Your task to perform on an android device: uninstall "Google Pay: Save, Pay, Manage" Image 0: 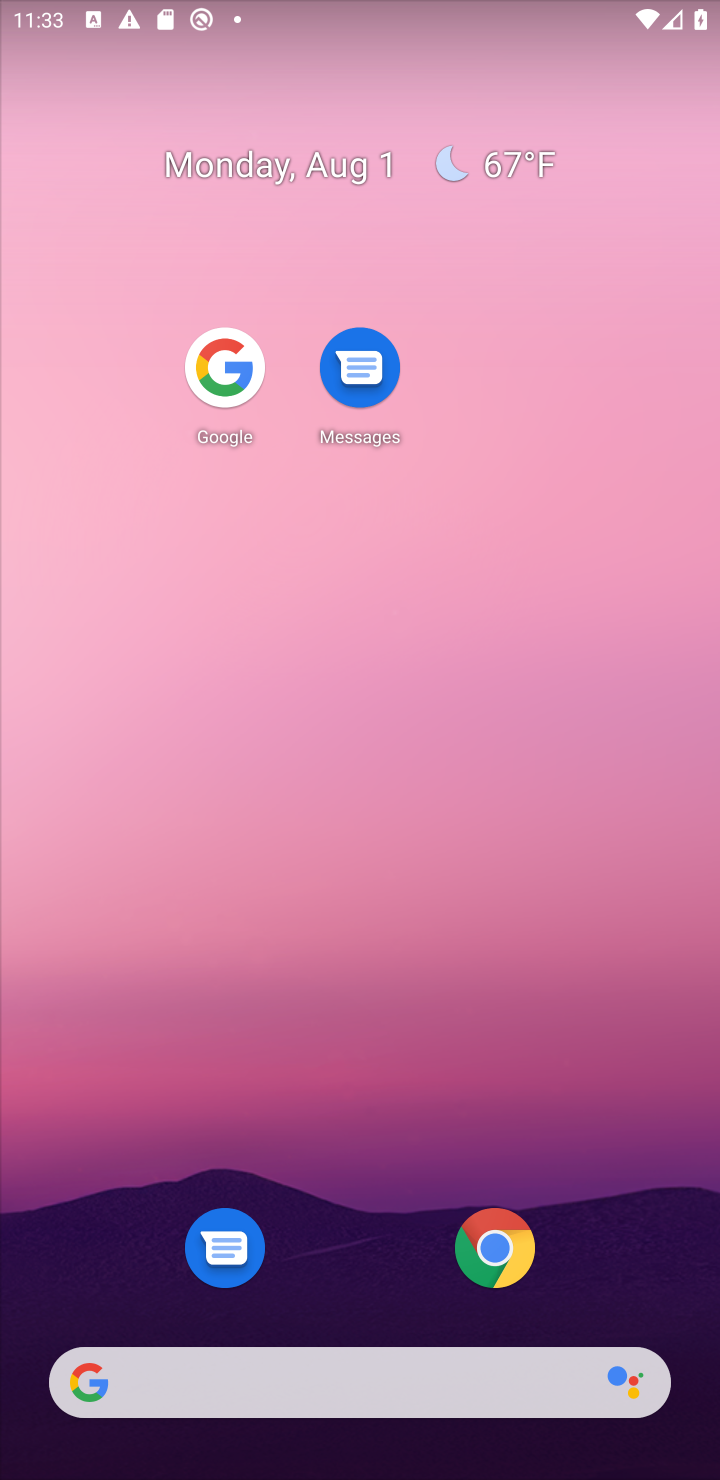
Step 0: drag from (639, 590) to (676, 45)
Your task to perform on an android device: uninstall "Google Pay: Save, Pay, Manage" Image 1: 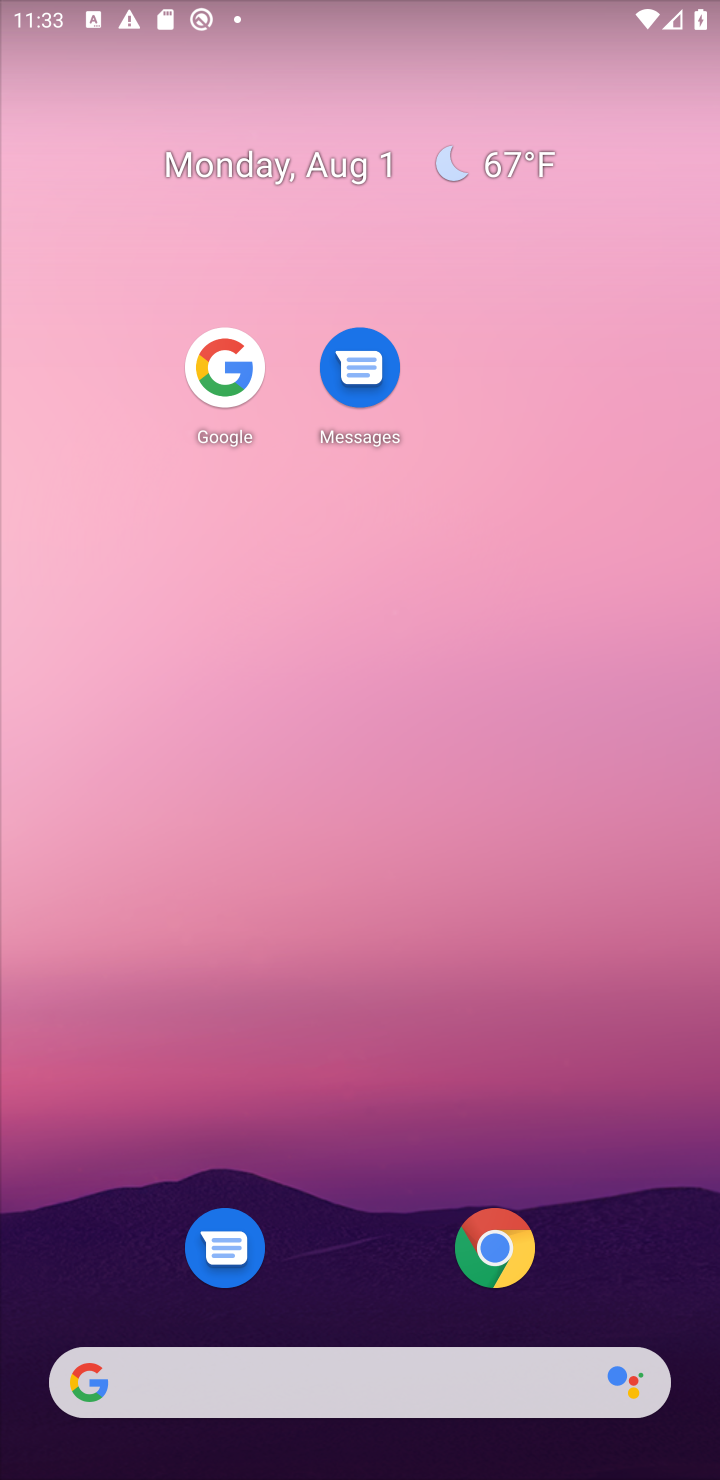
Step 1: drag from (407, 366) to (456, 52)
Your task to perform on an android device: uninstall "Google Pay: Save, Pay, Manage" Image 2: 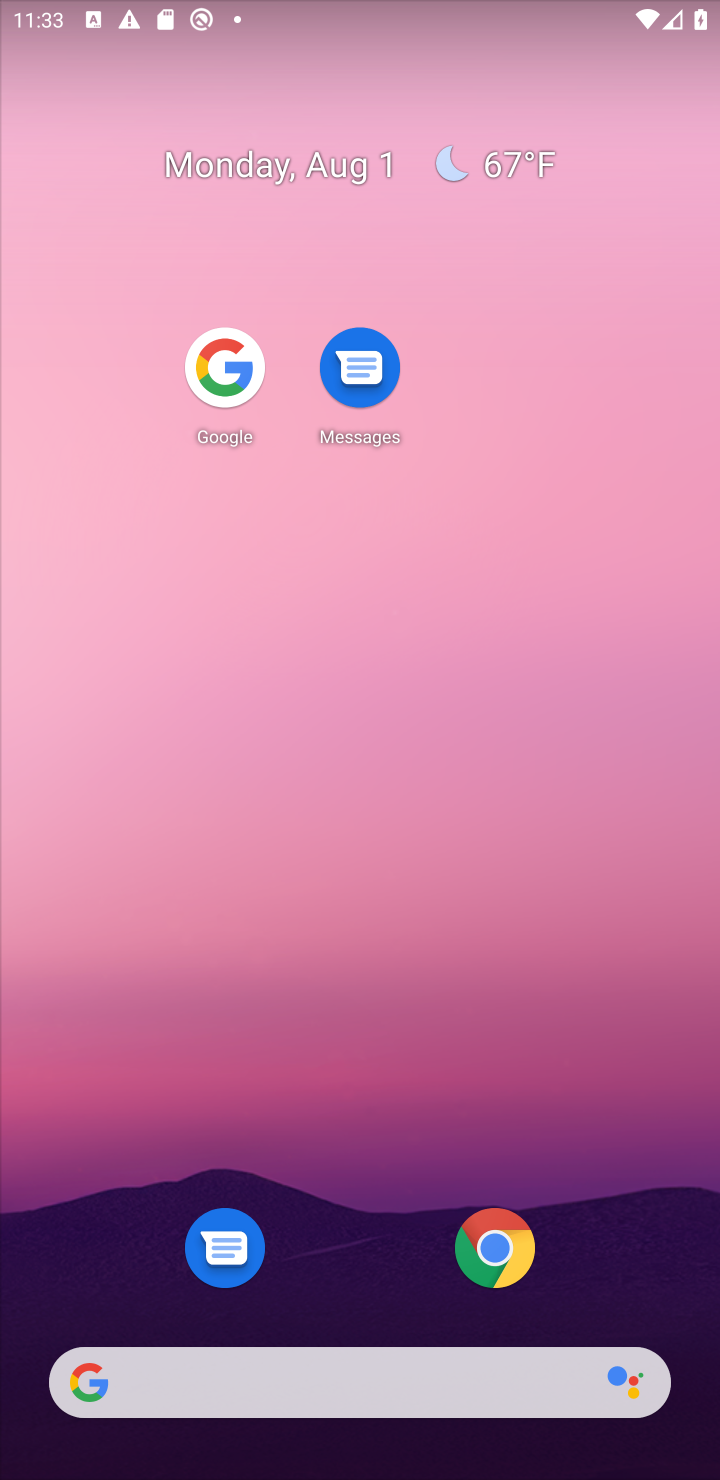
Step 2: click (497, 927)
Your task to perform on an android device: uninstall "Google Pay: Save, Pay, Manage" Image 3: 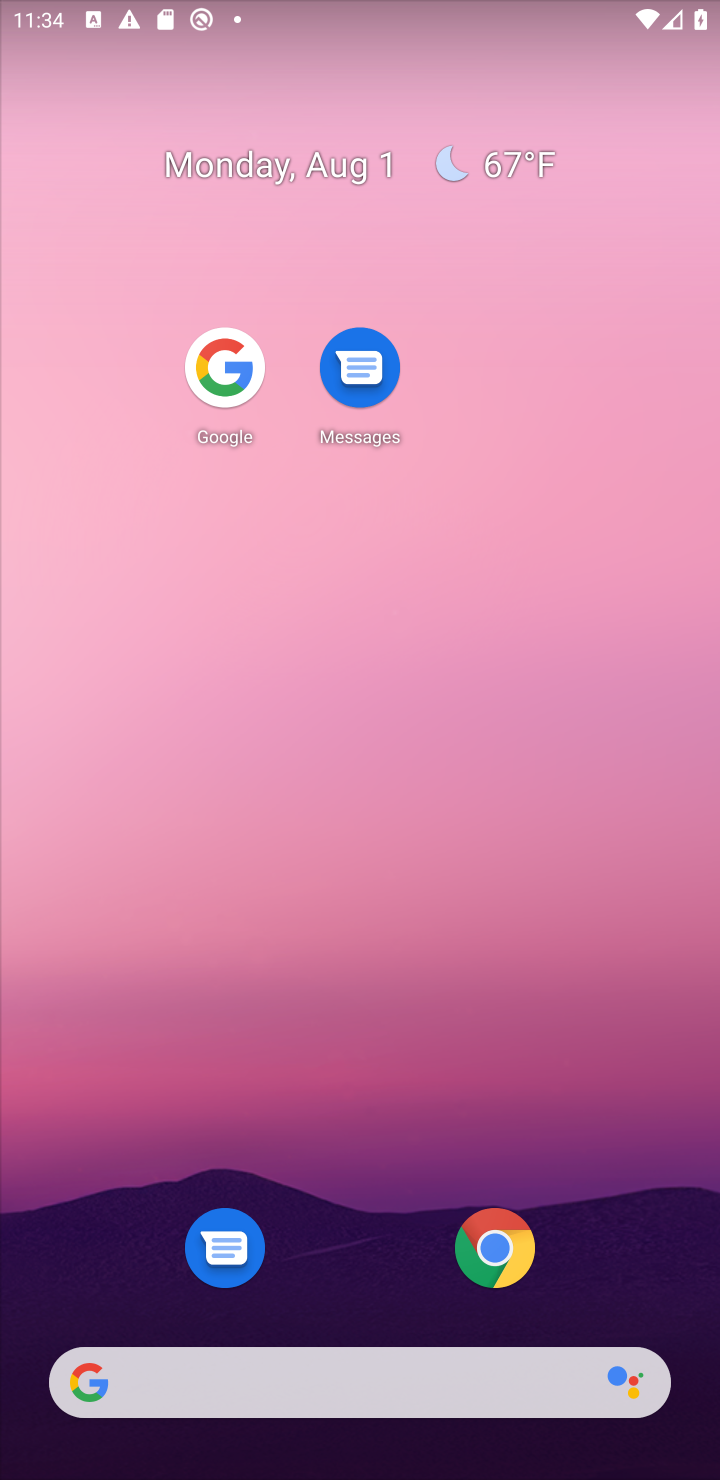
Step 3: drag from (461, 962) to (440, 35)
Your task to perform on an android device: uninstall "Google Pay: Save, Pay, Manage" Image 4: 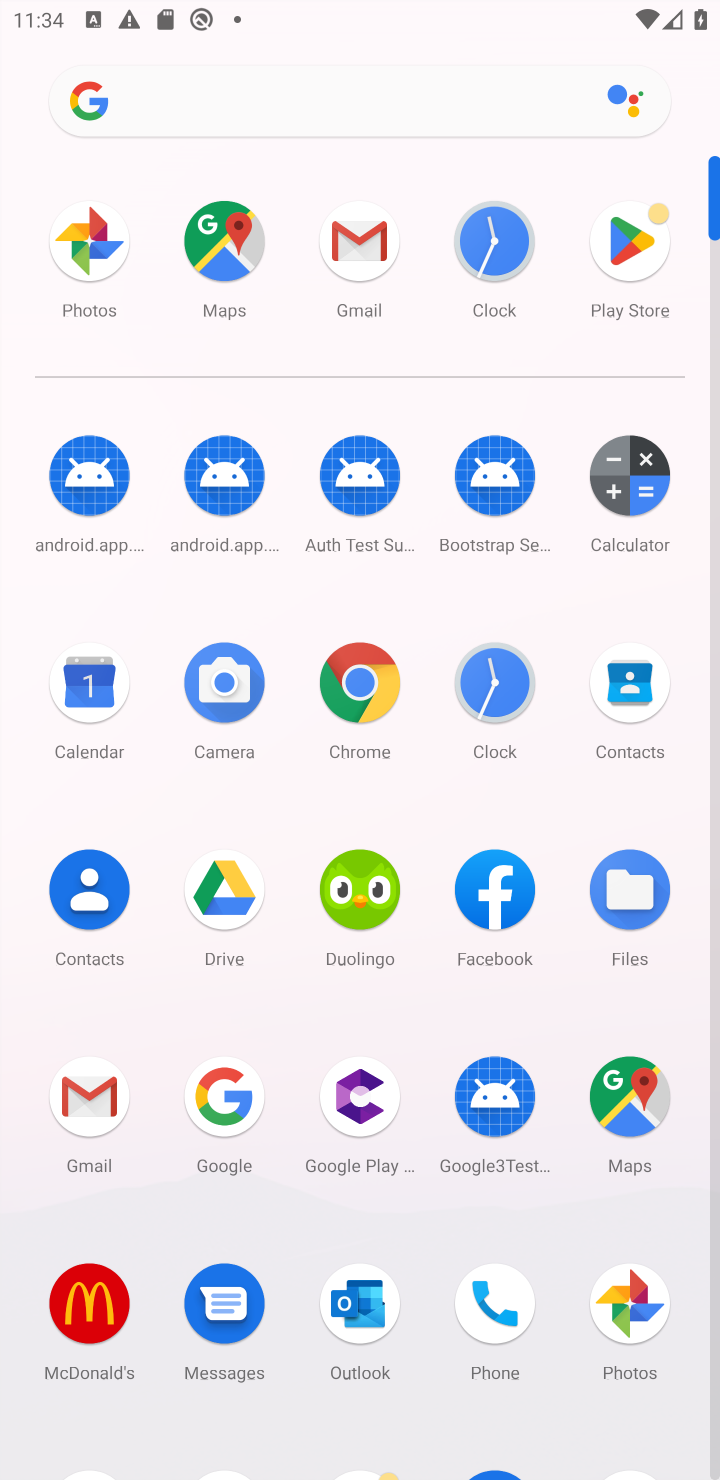
Step 4: drag from (416, 1231) to (446, 170)
Your task to perform on an android device: uninstall "Google Pay: Save, Pay, Manage" Image 5: 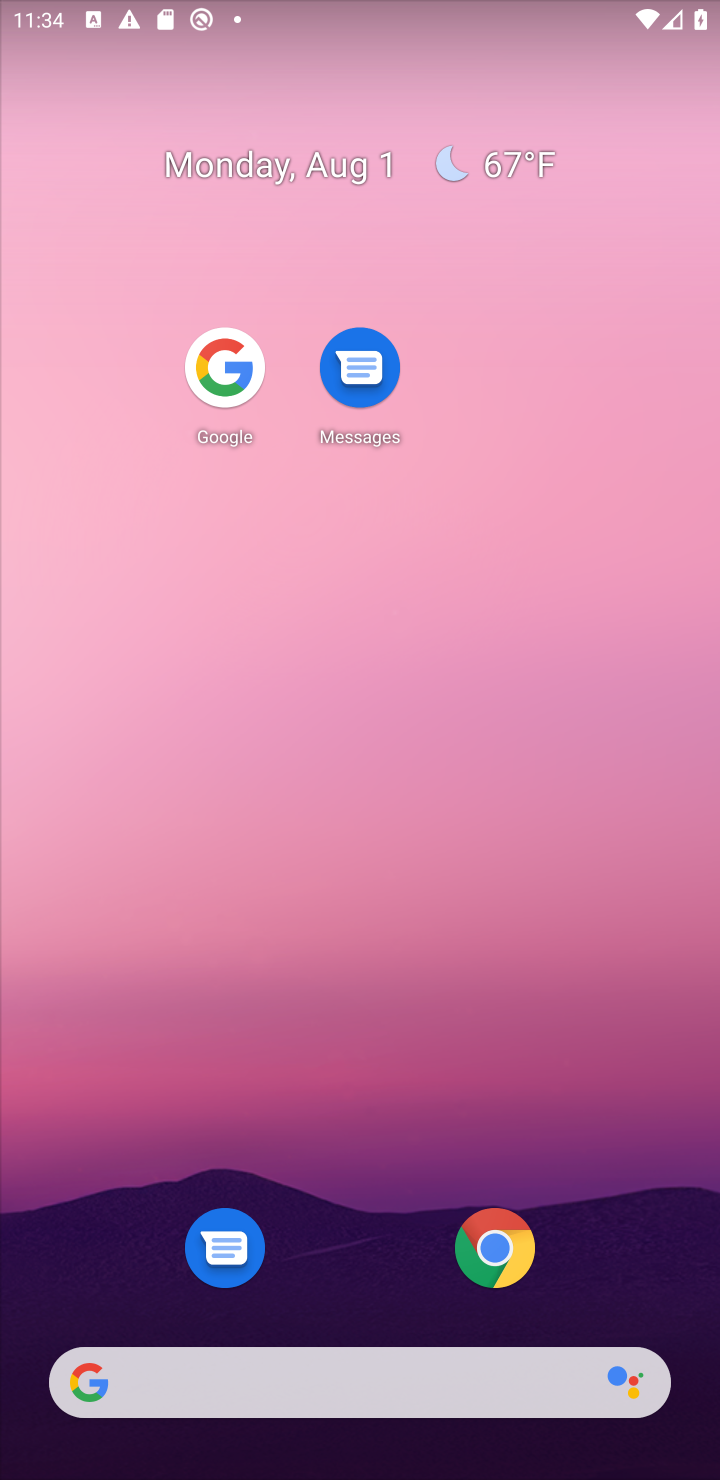
Step 5: drag from (394, 486) to (403, 5)
Your task to perform on an android device: uninstall "Google Pay: Save, Pay, Manage" Image 6: 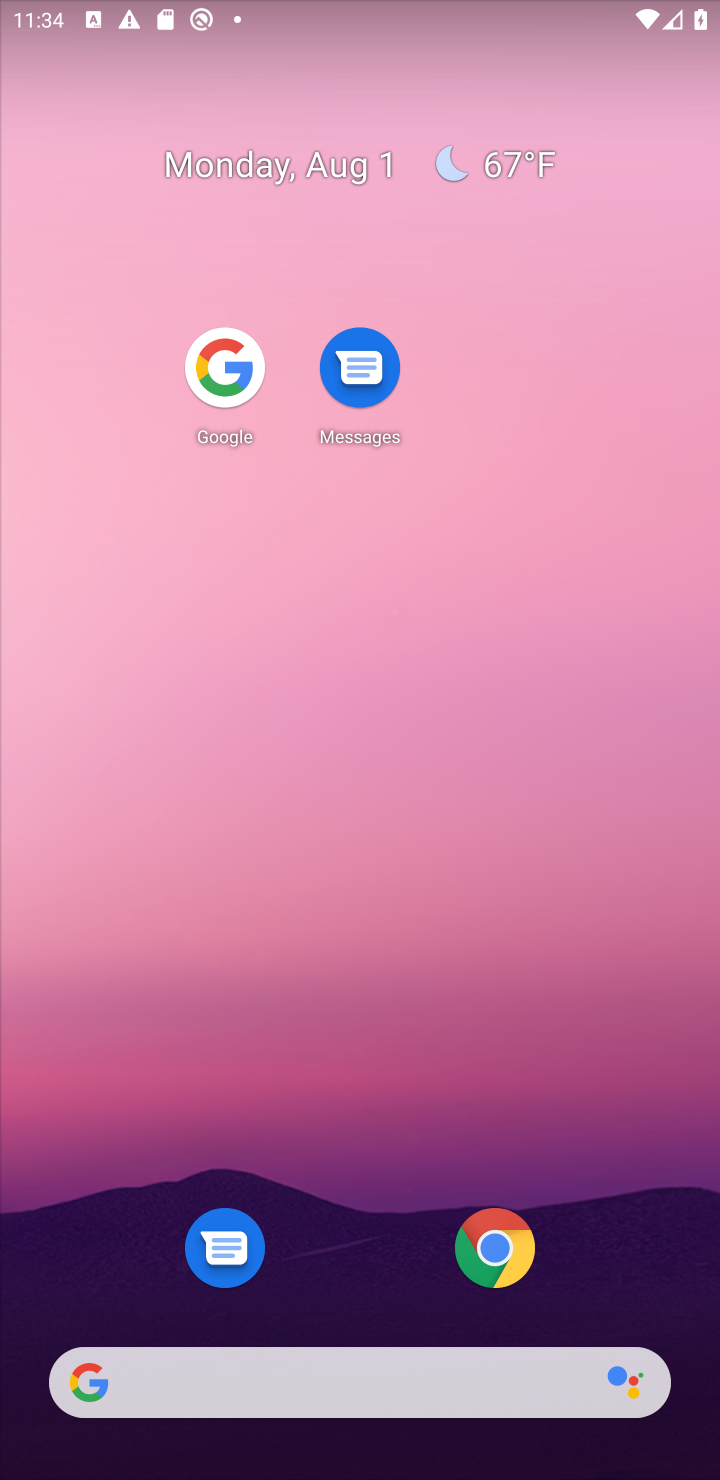
Step 6: drag from (487, 1041) to (526, 24)
Your task to perform on an android device: uninstall "Google Pay: Save, Pay, Manage" Image 7: 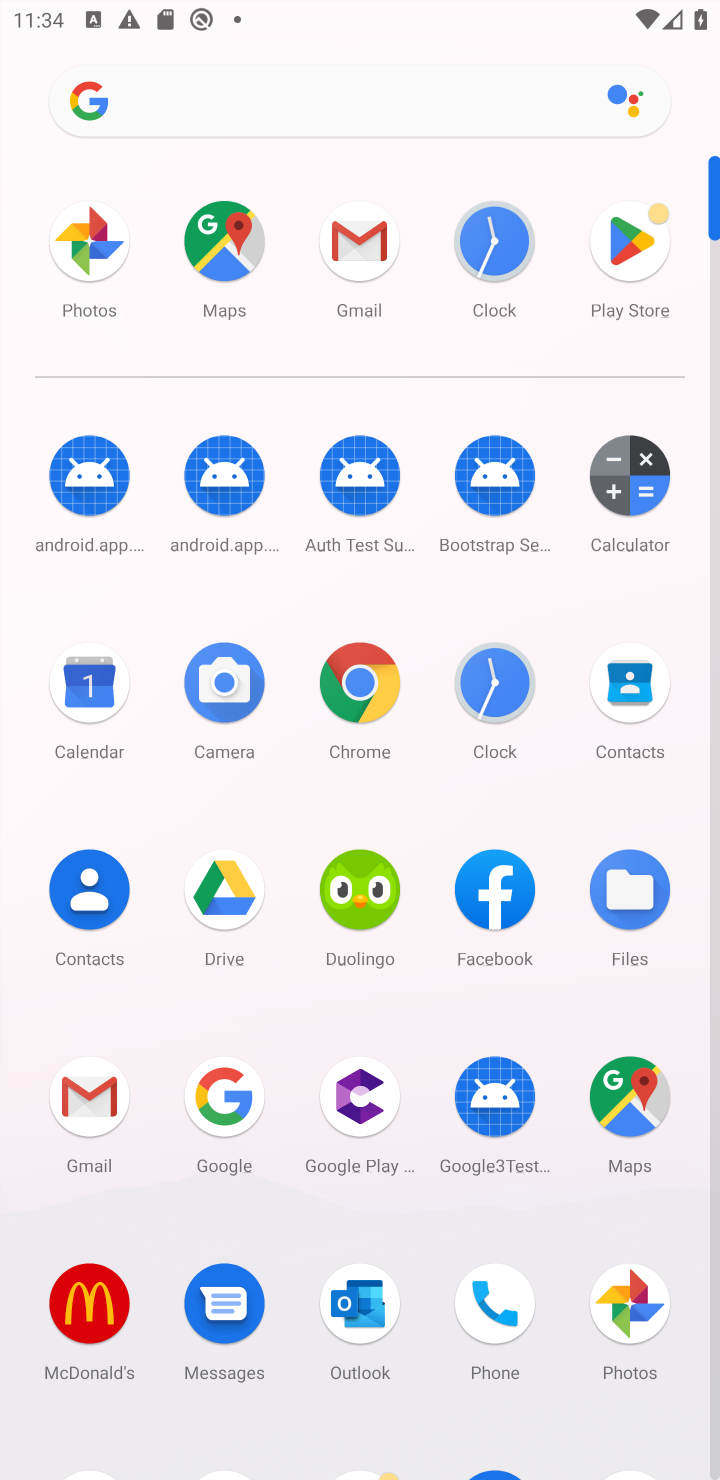
Step 7: drag from (314, 1122) to (347, 238)
Your task to perform on an android device: uninstall "Google Pay: Save, Pay, Manage" Image 8: 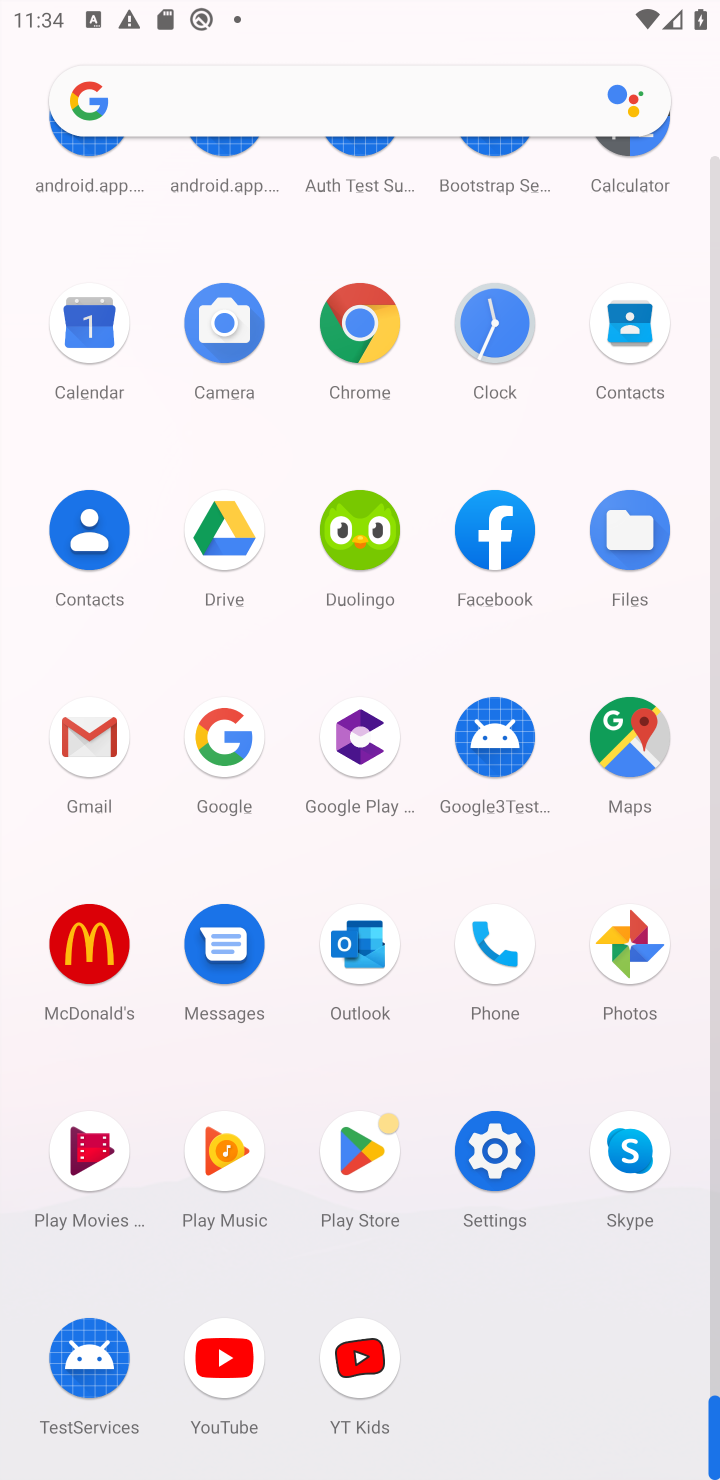
Step 8: click (366, 1140)
Your task to perform on an android device: uninstall "Google Pay: Save, Pay, Manage" Image 9: 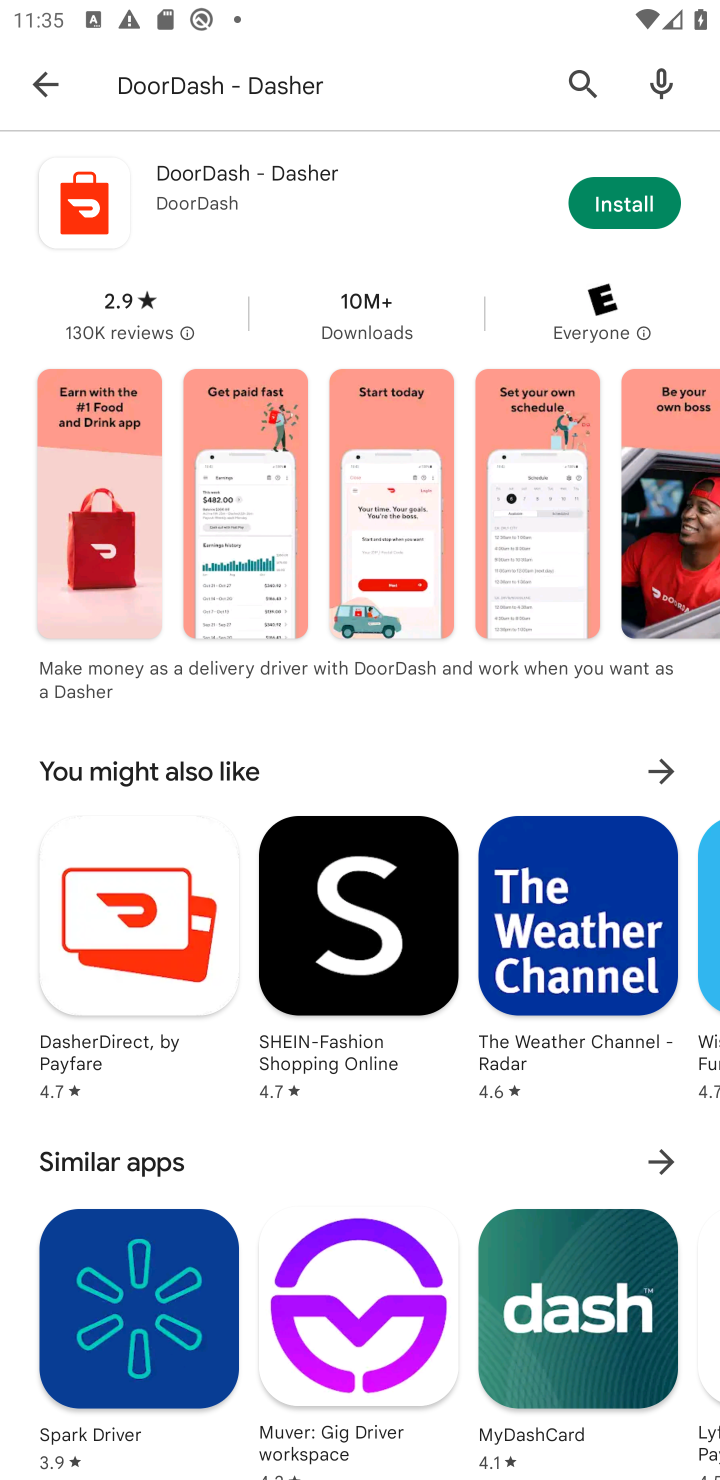
Step 9: click (365, 63)
Your task to perform on an android device: uninstall "Google Pay: Save, Pay, Manage" Image 10: 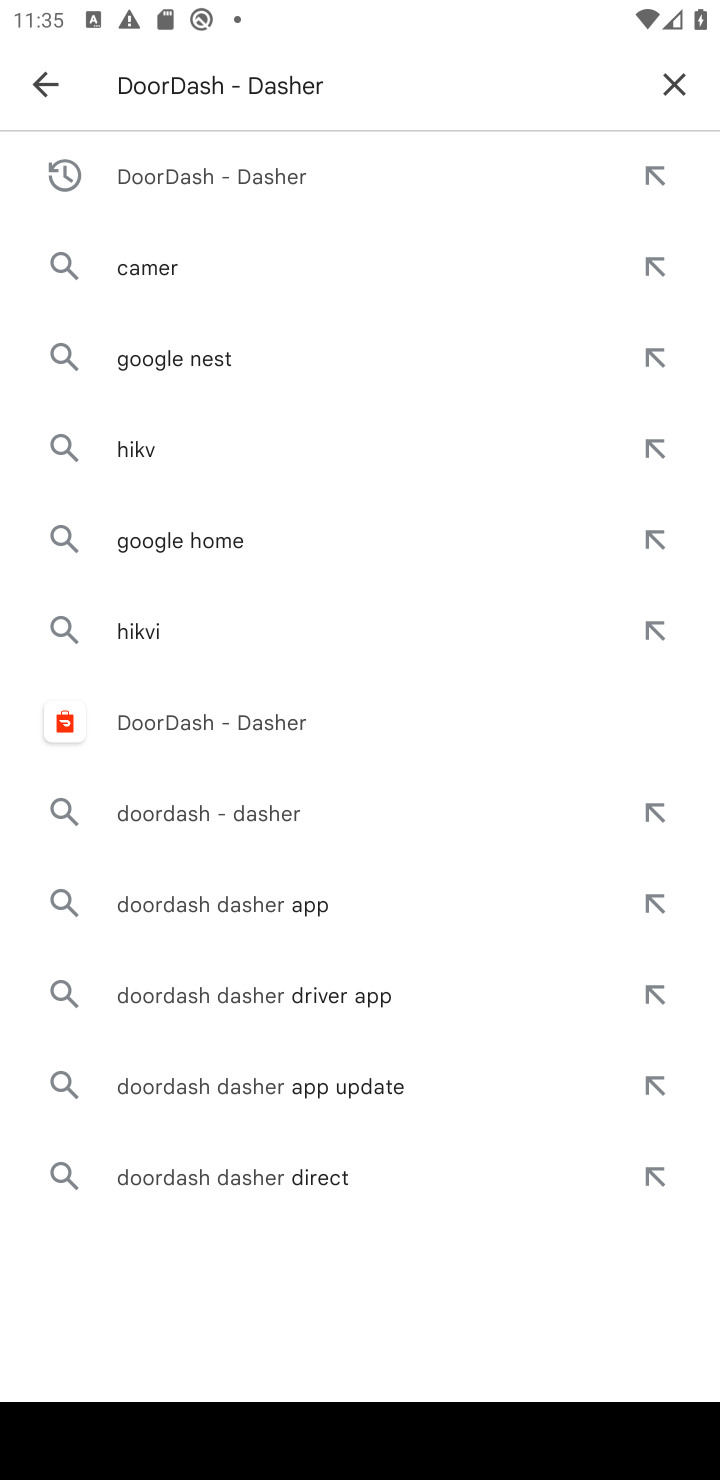
Step 10: click (679, 63)
Your task to perform on an android device: uninstall "Google Pay: Save, Pay, Manage" Image 11: 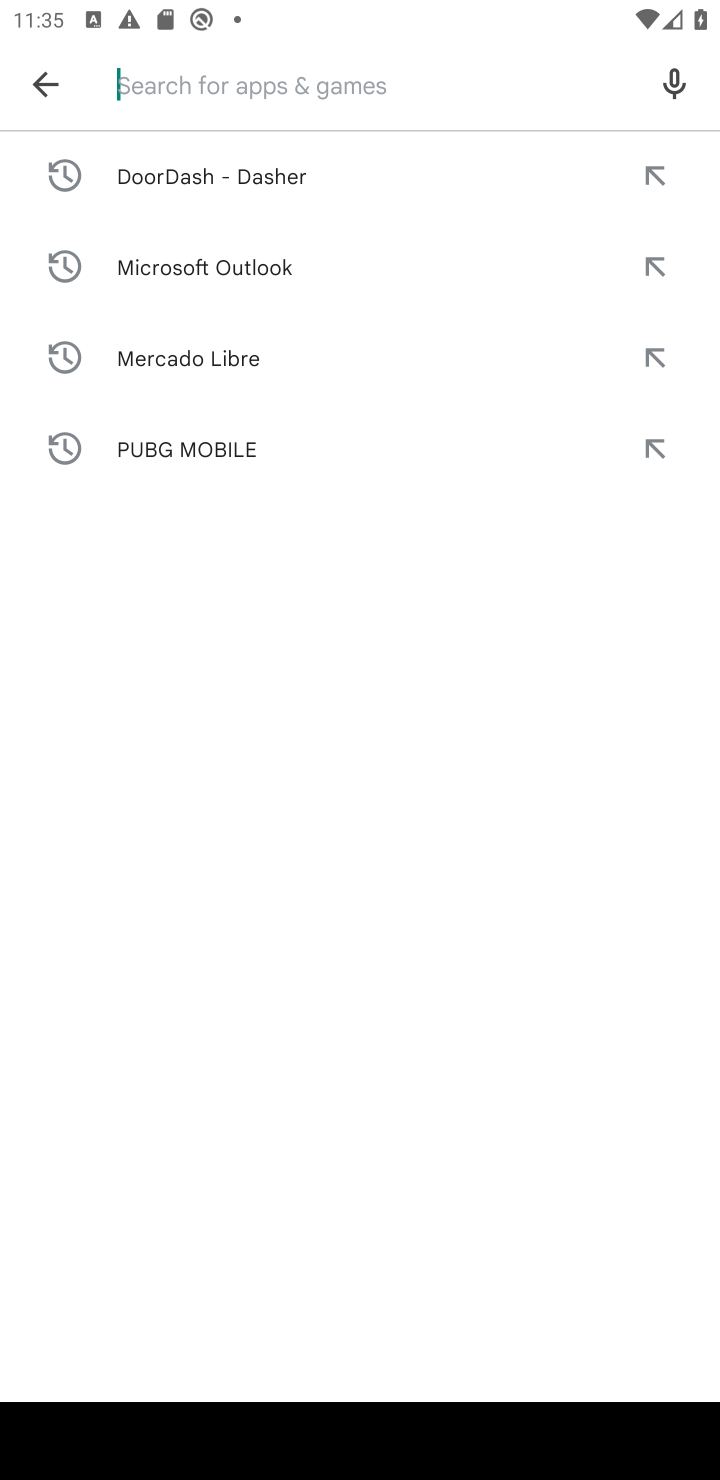
Step 11: type "Google Pay: Save, Pay, Manage"
Your task to perform on an android device: uninstall "Google Pay: Save, Pay, Manage" Image 12: 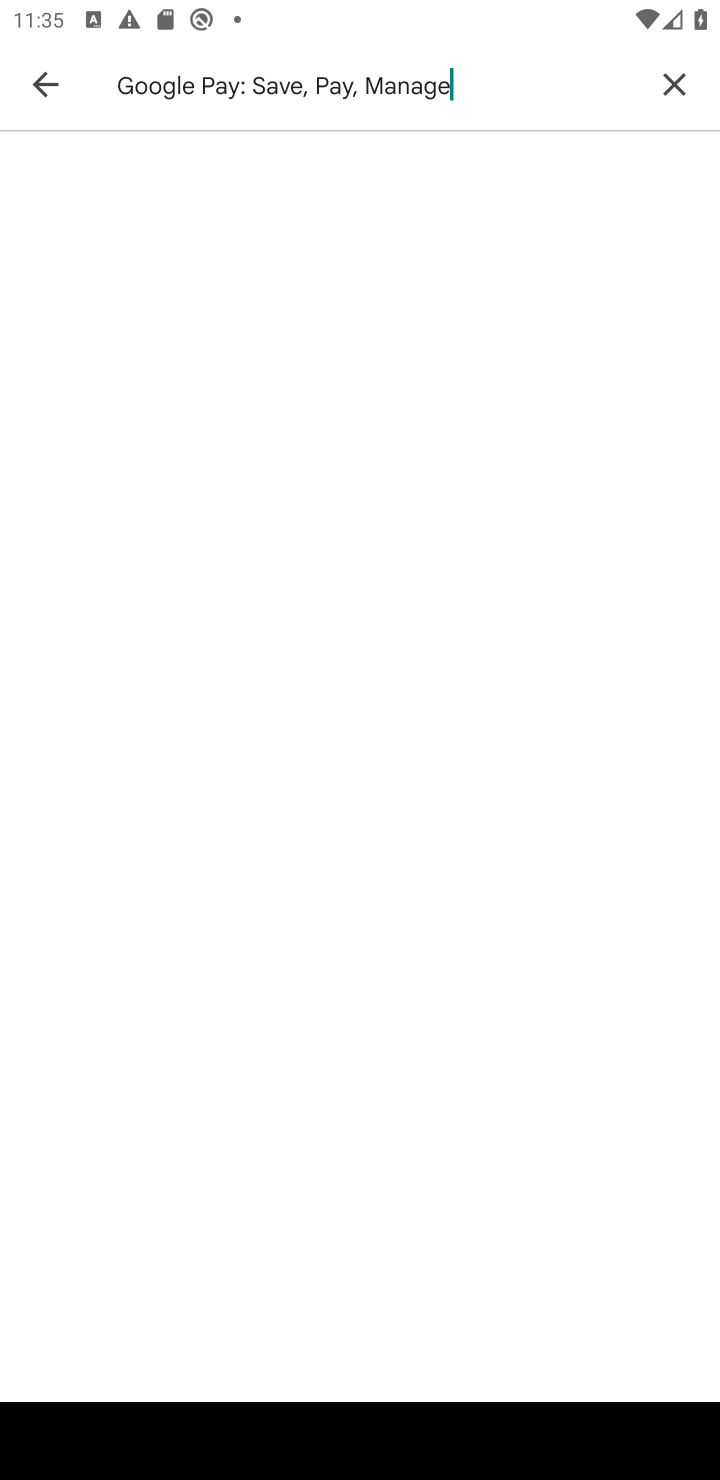
Step 12: press enter
Your task to perform on an android device: uninstall "Google Pay: Save, Pay, Manage" Image 13: 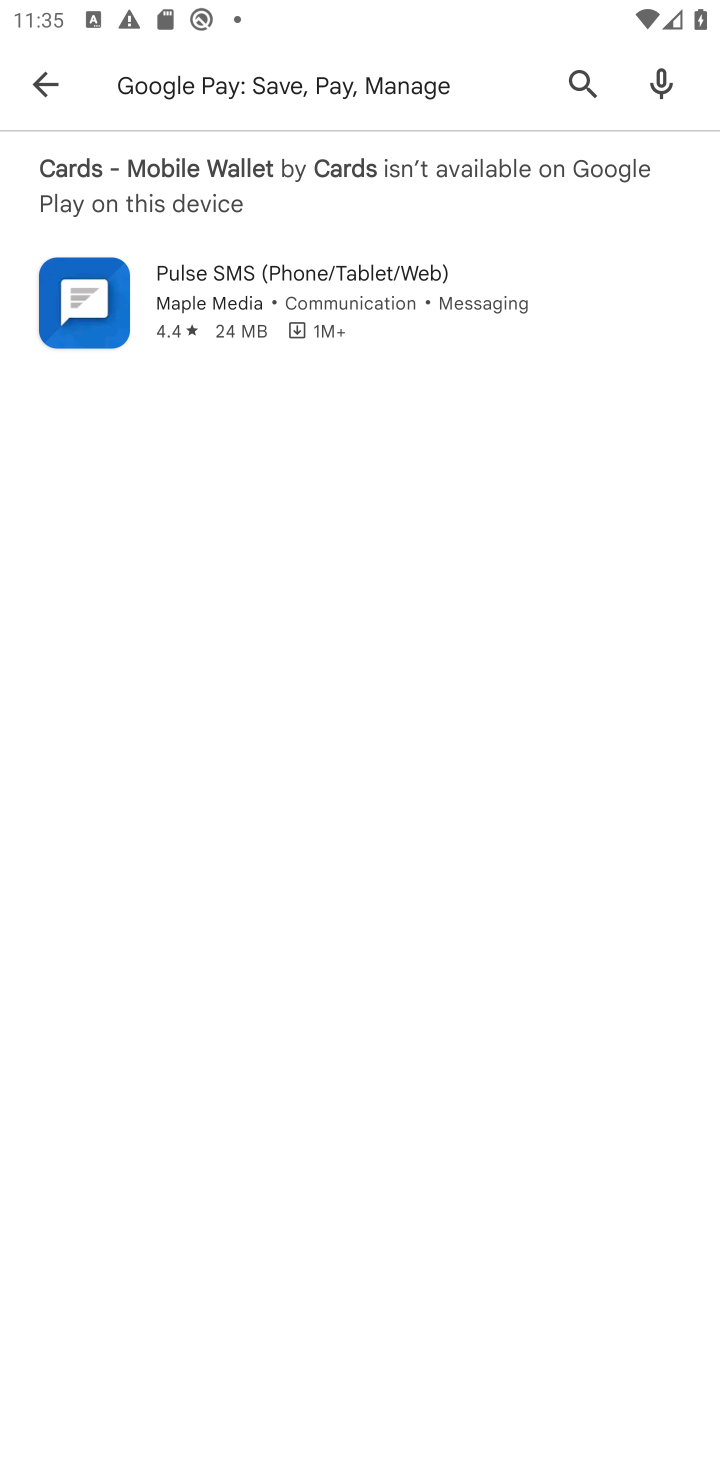
Step 13: task complete